Your task to perform on an android device: install app "Walmart Shopping & Grocery" Image 0: 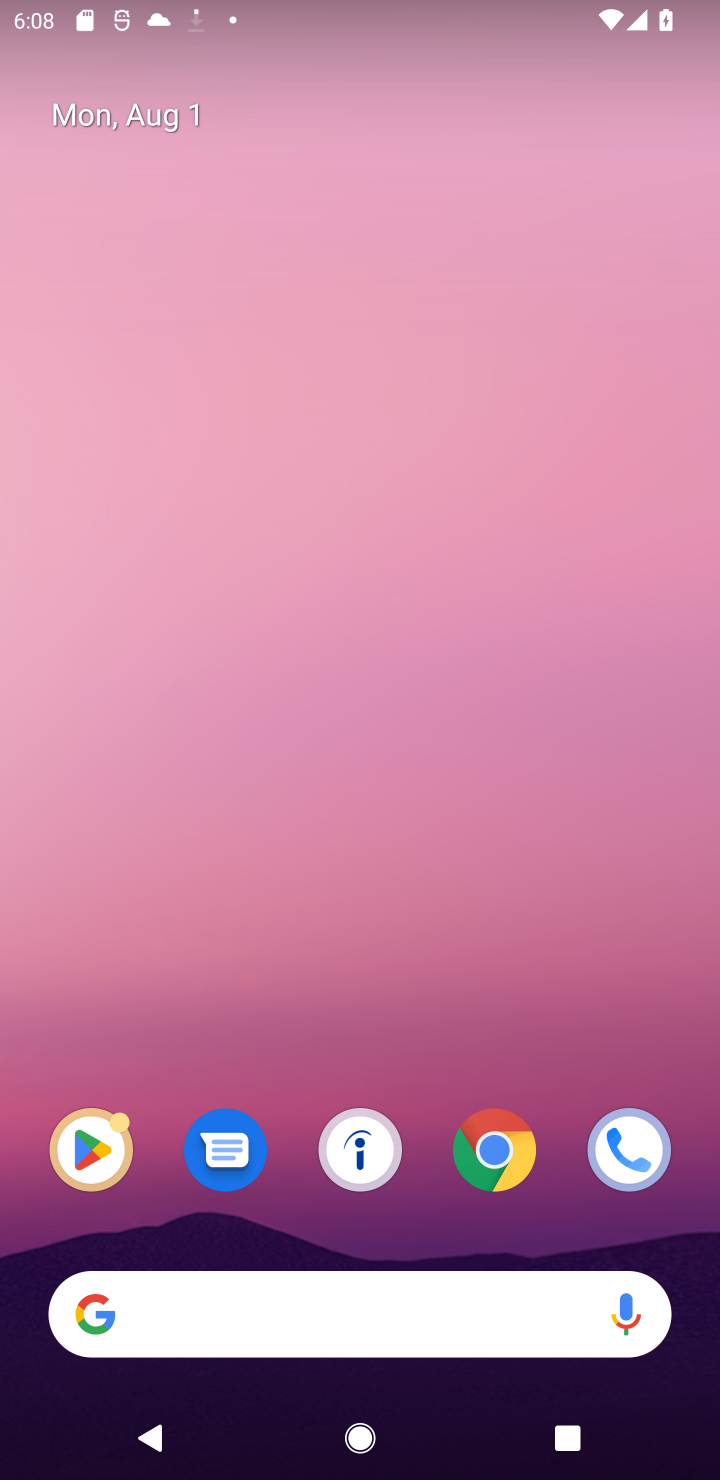
Step 0: click (100, 1166)
Your task to perform on an android device: install app "Walmart Shopping & Grocery" Image 1: 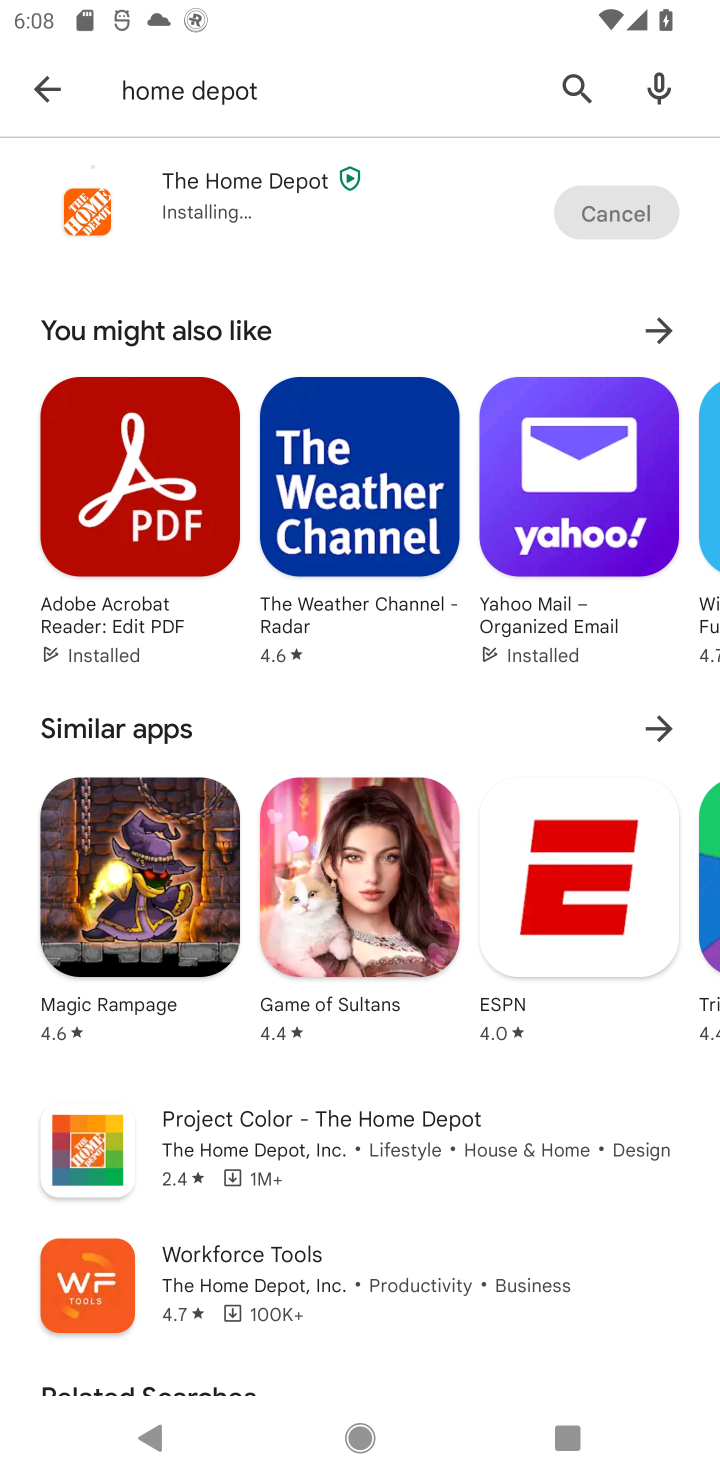
Step 1: click (567, 92)
Your task to perform on an android device: install app "Walmart Shopping & Grocery" Image 2: 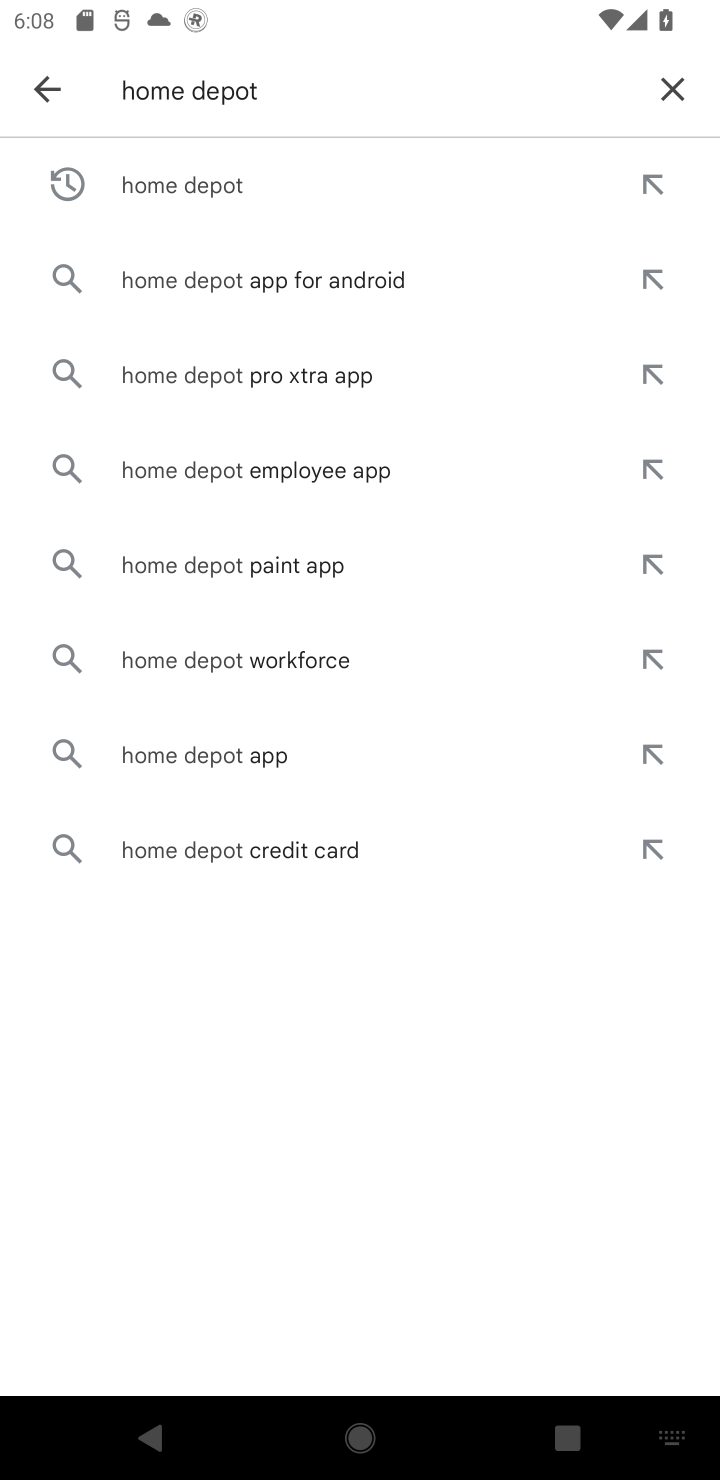
Step 2: click (646, 101)
Your task to perform on an android device: install app "Walmart Shopping & Grocery" Image 3: 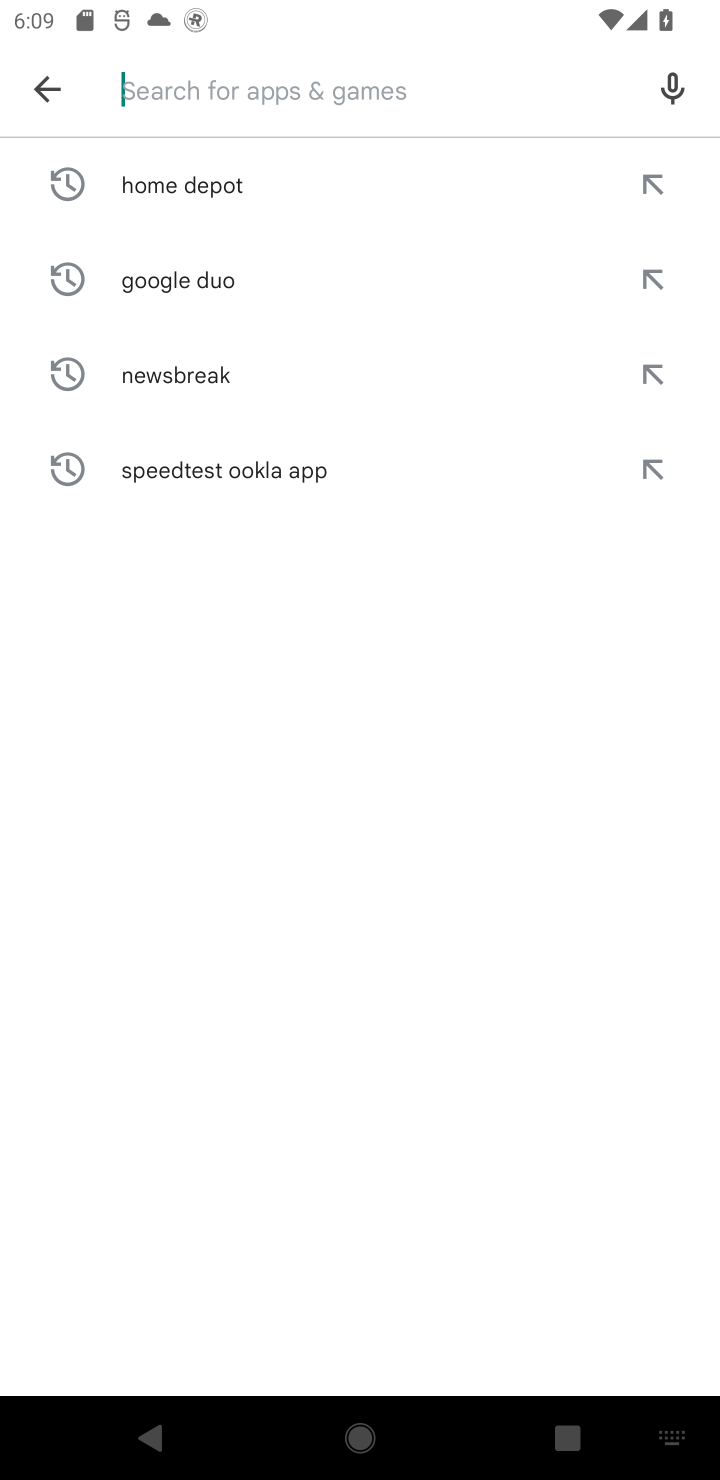
Step 3: type "walmart"
Your task to perform on an android device: install app "Walmart Shopping & Grocery" Image 4: 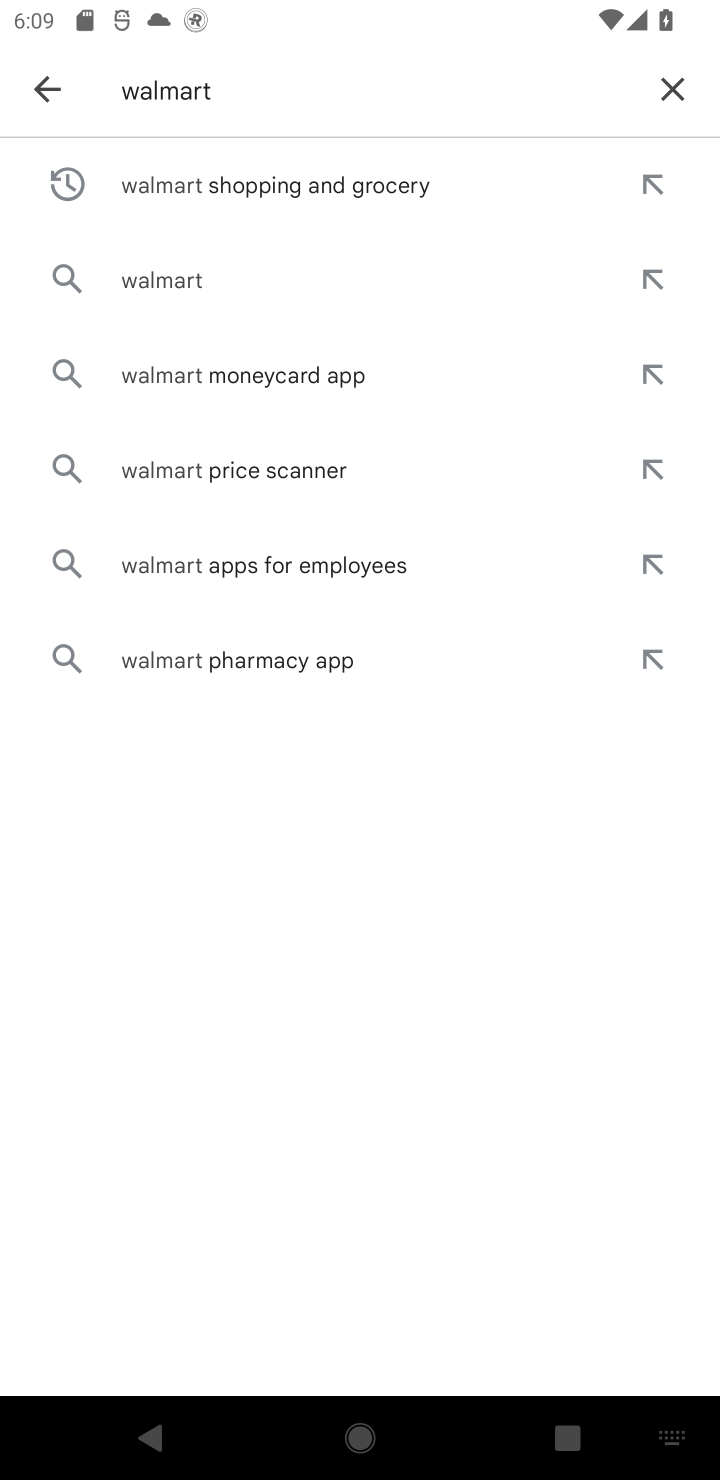
Step 4: click (344, 199)
Your task to perform on an android device: install app "Walmart Shopping & Grocery" Image 5: 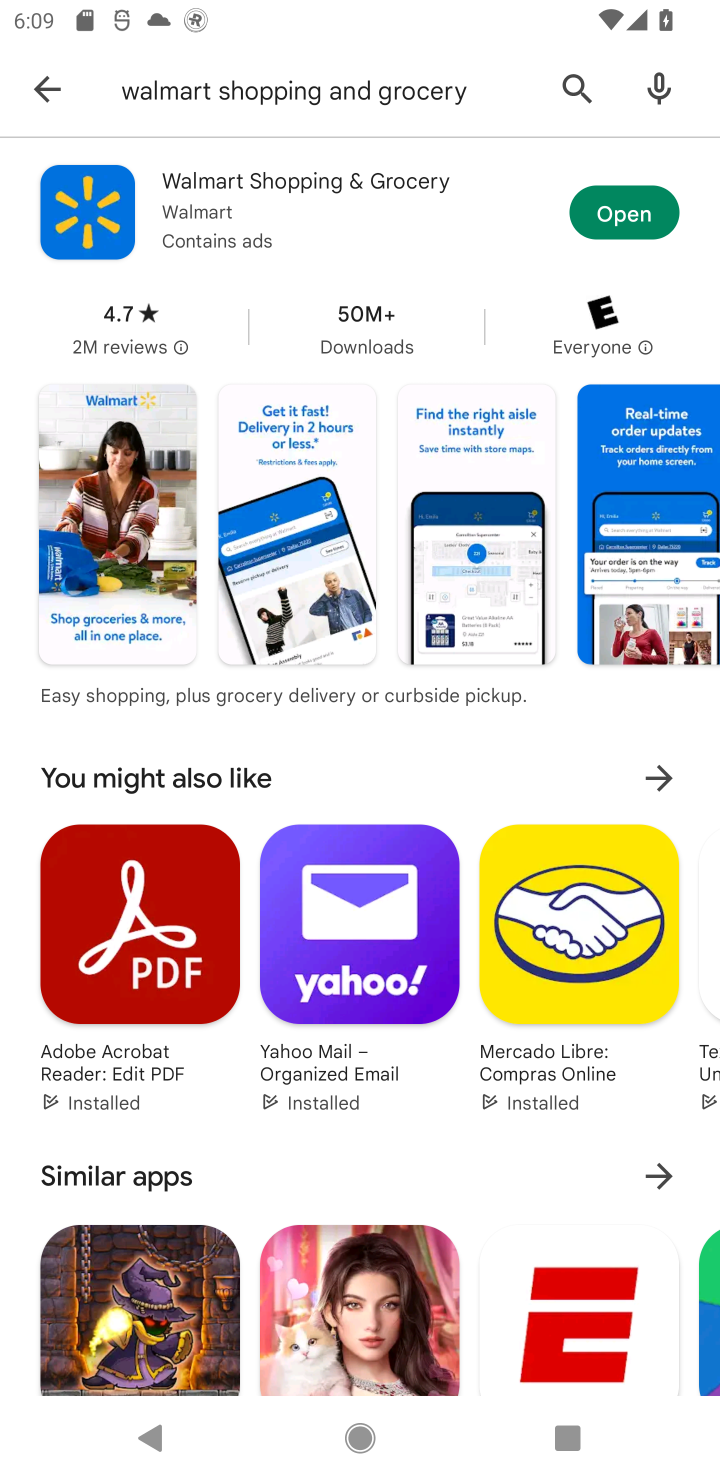
Step 5: click (617, 215)
Your task to perform on an android device: install app "Walmart Shopping & Grocery" Image 6: 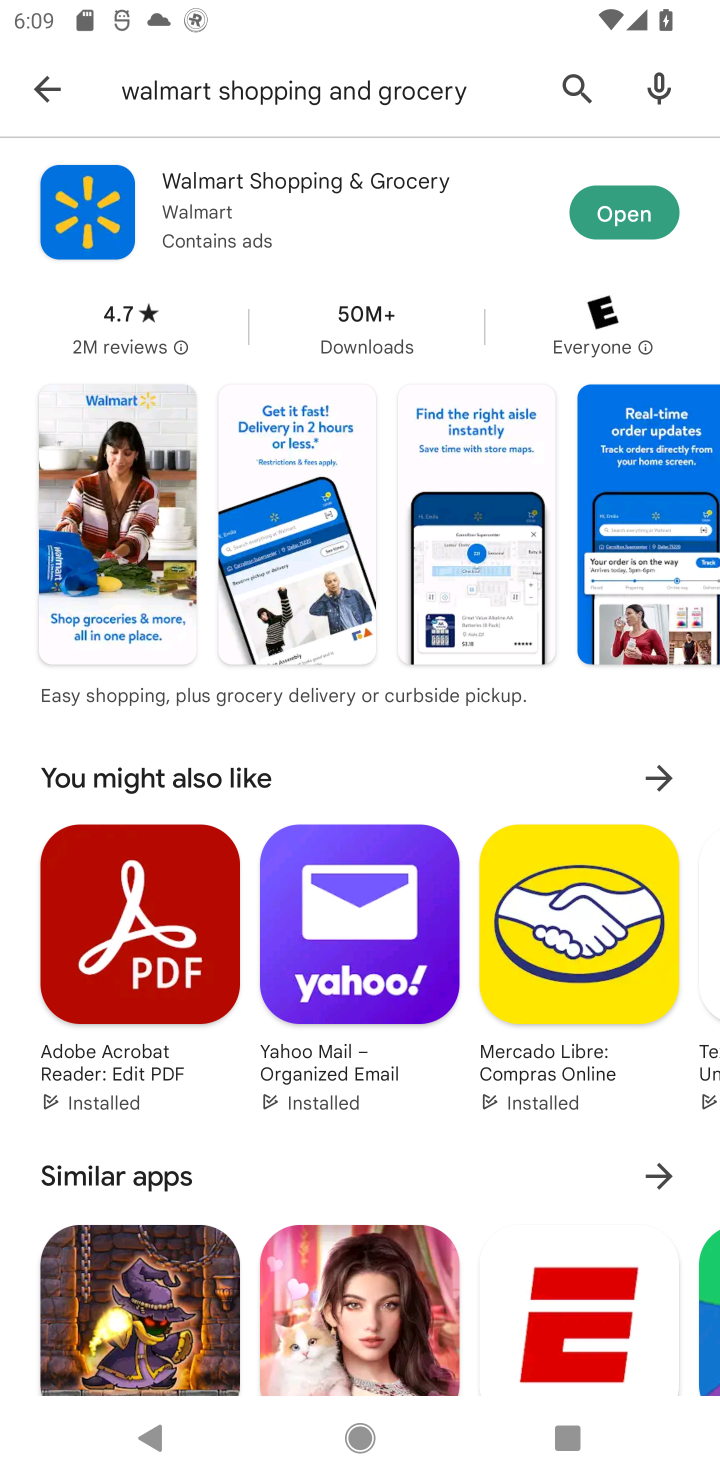
Step 6: task complete